Your task to perform on an android device: Show me recent news Image 0: 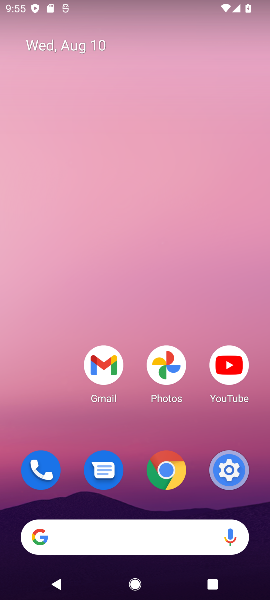
Step 0: click (128, 106)
Your task to perform on an android device: Show me recent news Image 1: 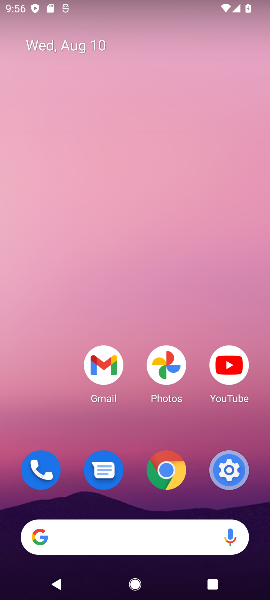
Step 1: click (39, 537)
Your task to perform on an android device: Show me recent news Image 2: 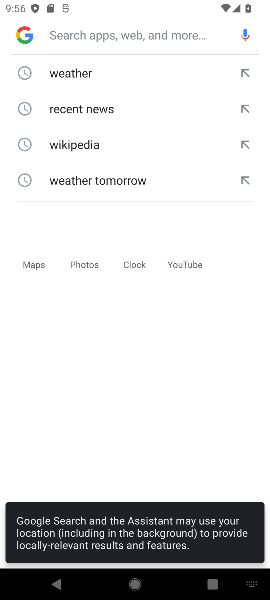
Step 2: click (25, 31)
Your task to perform on an android device: Show me recent news Image 3: 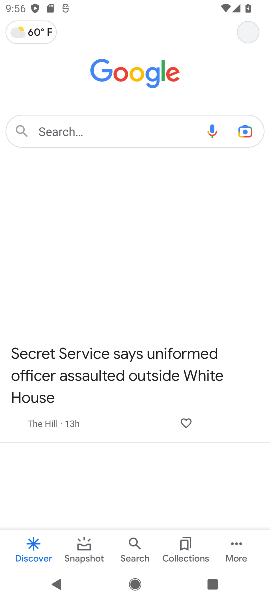
Step 3: task complete